Your task to perform on an android device: Show me the alarms in the clock app Image 0: 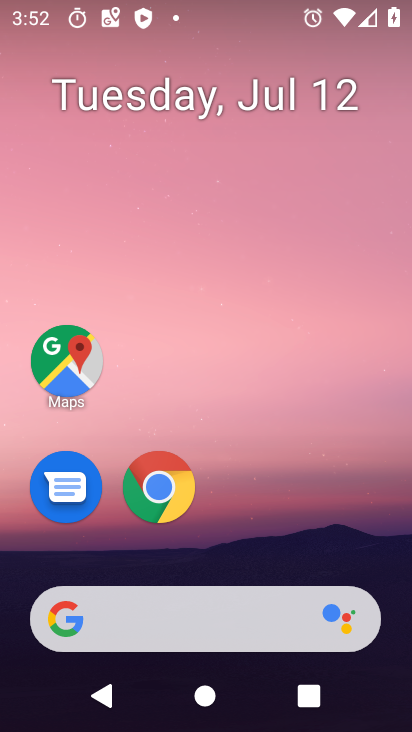
Step 0: drag from (161, 610) to (230, 212)
Your task to perform on an android device: Show me the alarms in the clock app Image 1: 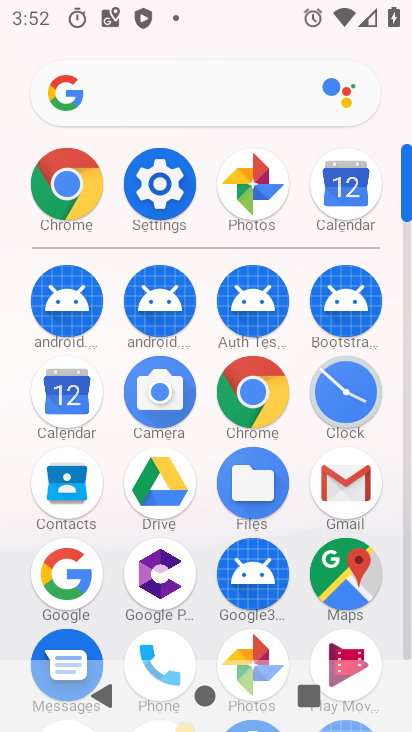
Step 1: click (332, 399)
Your task to perform on an android device: Show me the alarms in the clock app Image 2: 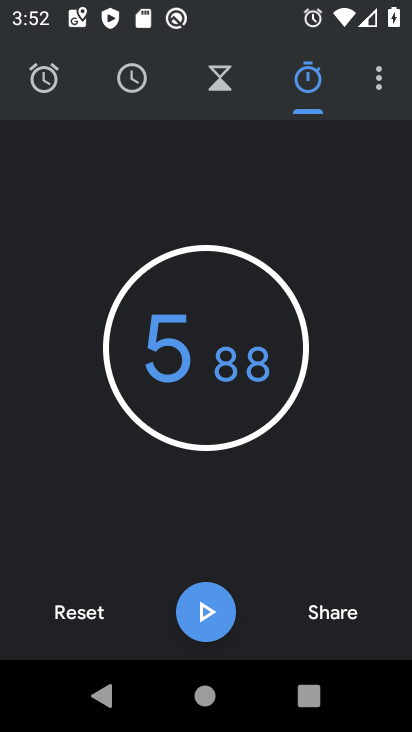
Step 2: click (46, 81)
Your task to perform on an android device: Show me the alarms in the clock app Image 3: 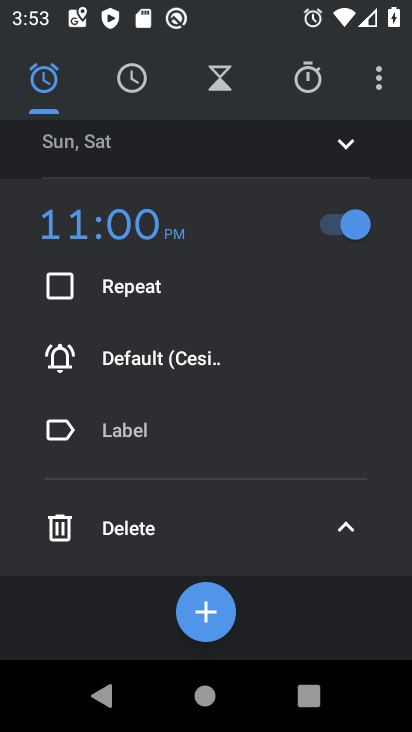
Step 3: task complete